Your task to perform on an android device: Go to CNN.com Image 0: 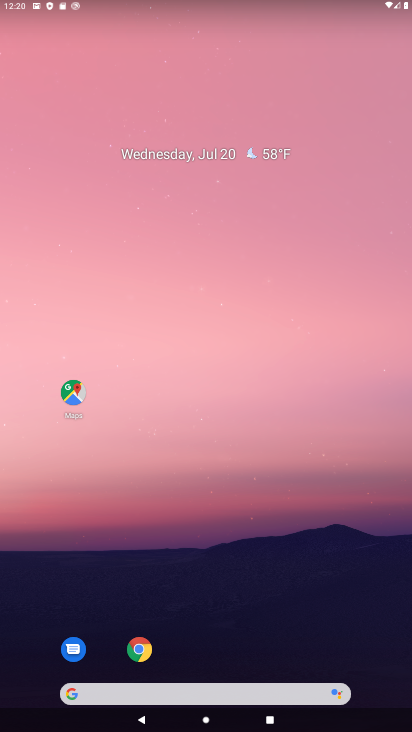
Step 0: drag from (191, 645) to (244, 31)
Your task to perform on an android device: Go to CNN.com Image 1: 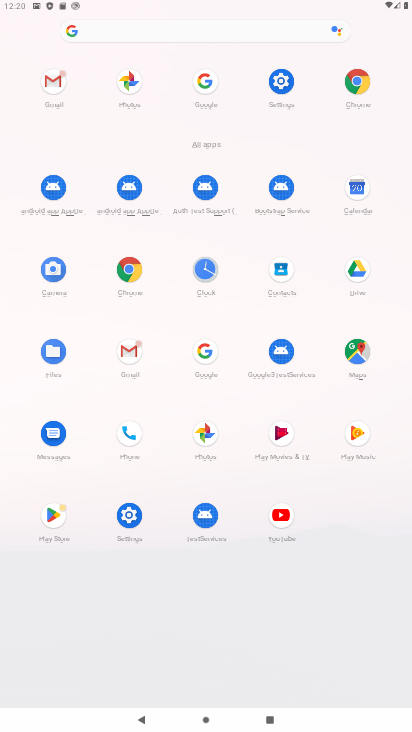
Step 1: click (205, 349)
Your task to perform on an android device: Go to CNN.com Image 2: 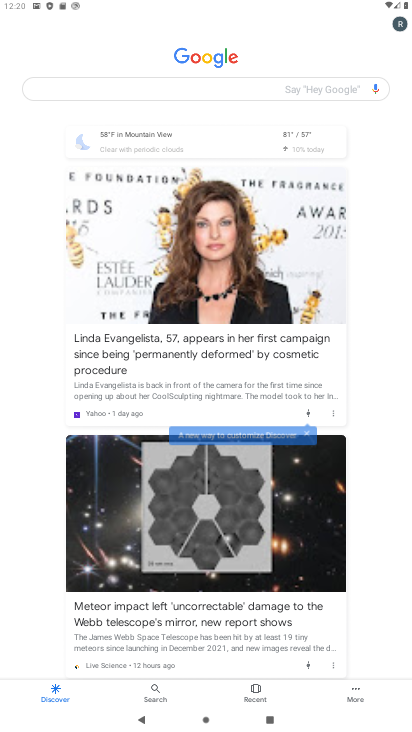
Step 2: click (170, 80)
Your task to perform on an android device: Go to CNN.com Image 3: 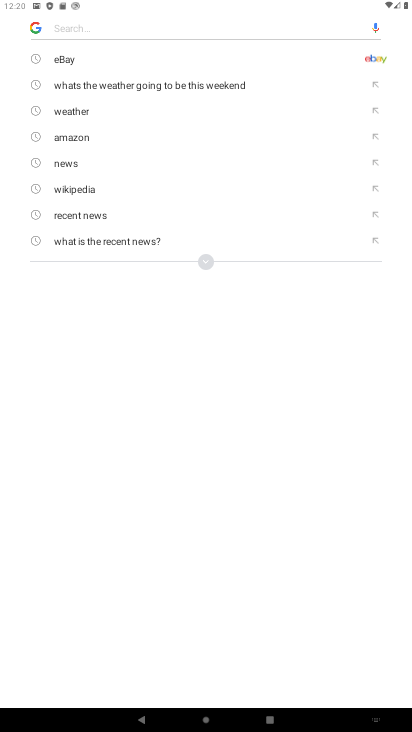
Step 3: type "cnn.com"
Your task to perform on an android device: Go to CNN.com Image 4: 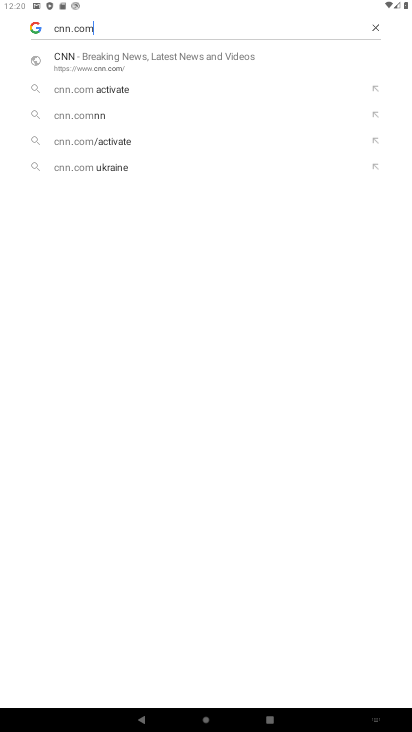
Step 4: click (154, 53)
Your task to perform on an android device: Go to CNN.com Image 5: 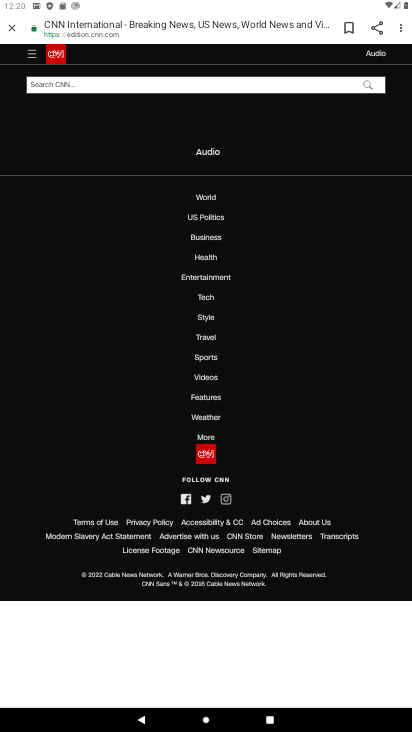
Step 5: task complete